Your task to perform on an android device: check data usage Image 0: 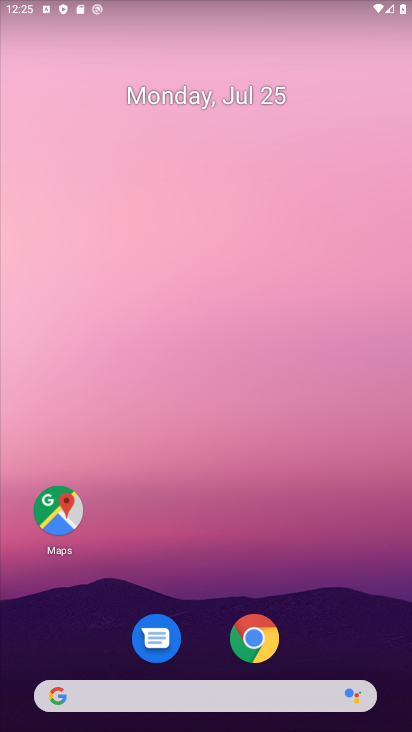
Step 0: drag from (197, 3) to (121, 698)
Your task to perform on an android device: check data usage Image 1: 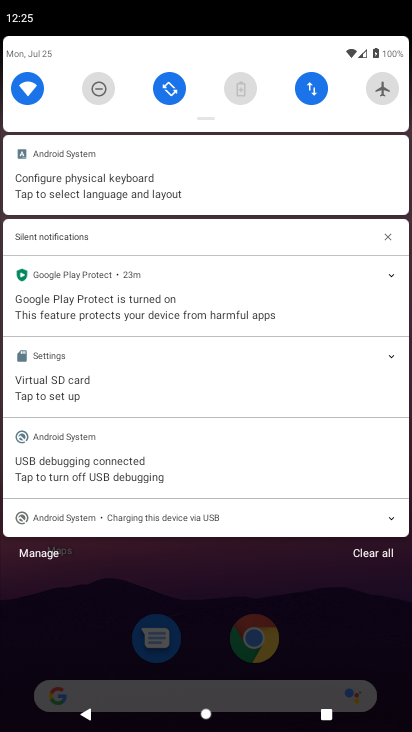
Step 1: click (305, 89)
Your task to perform on an android device: check data usage Image 2: 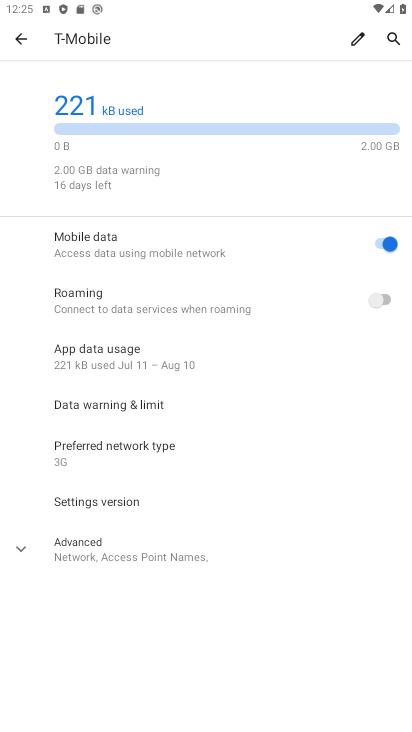
Step 2: task complete